Your task to perform on an android device: Go to Reddit.com Image 0: 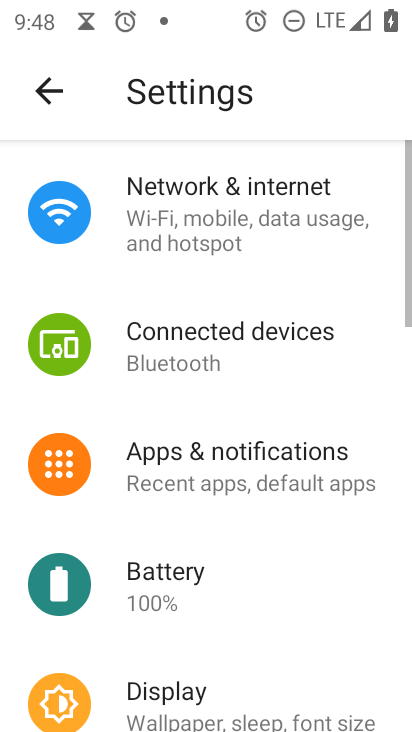
Step 0: press back button
Your task to perform on an android device: Go to Reddit.com Image 1: 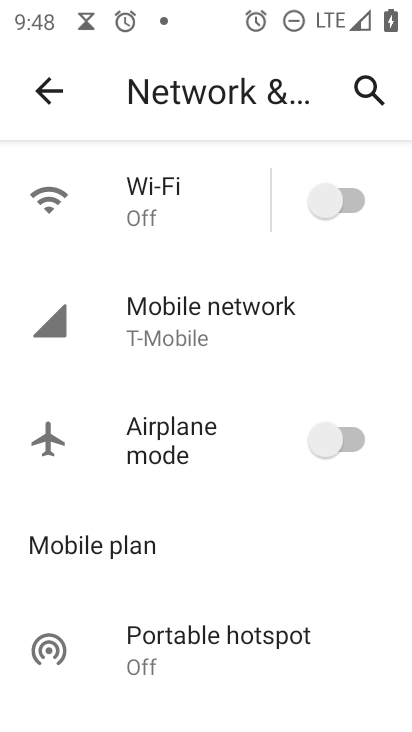
Step 1: press home button
Your task to perform on an android device: Go to Reddit.com Image 2: 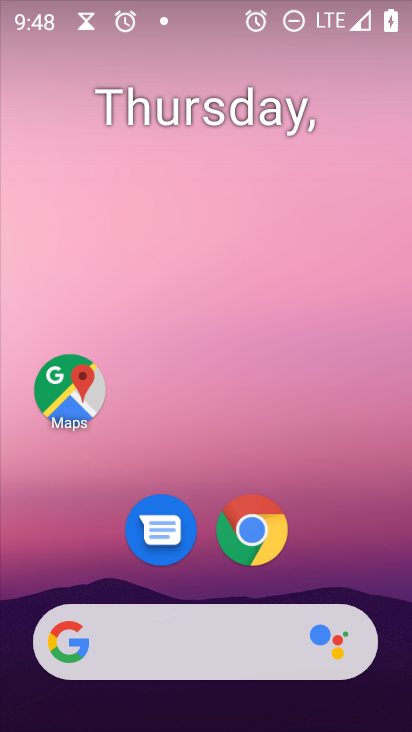
Step 2: drag from (326, 519) to (303, 54)
Your task to perform on an android device: Go to Reddit.com Image 3: 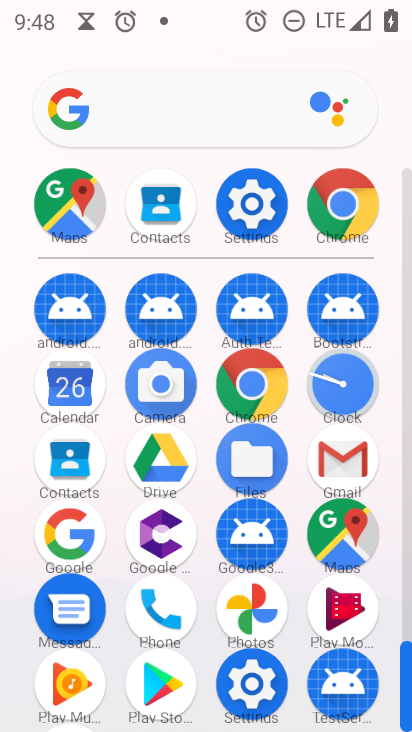
Step 3: click (253, 378)
Your task to perform on an android device: Go to Reddit.com Image 4: 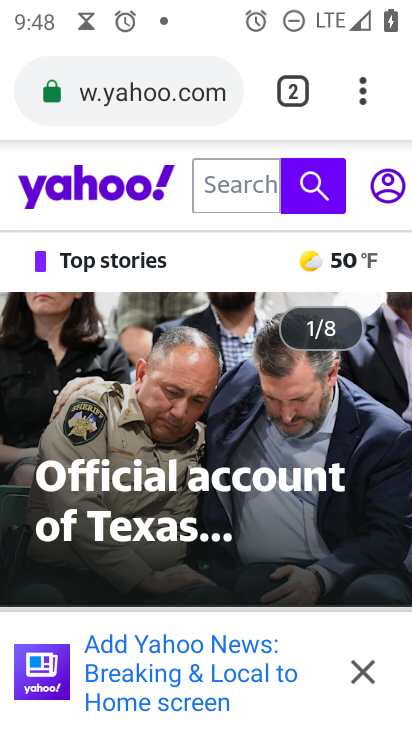
Step 4: click (137, 88)
Your task to perform on an android device: Go to Reddit.com Image 5: 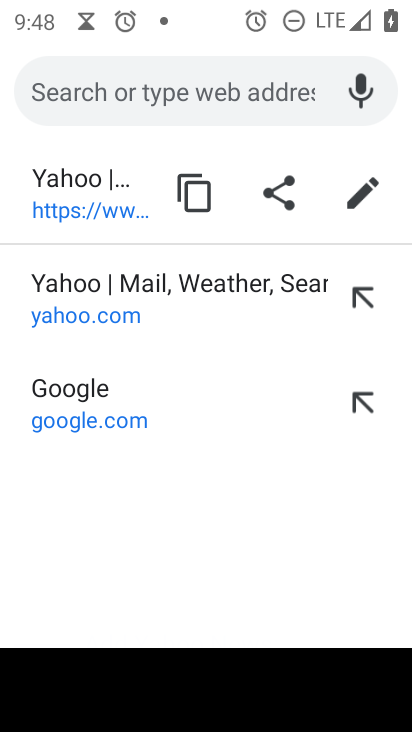
Step 5: type " Reddit.com"
Your task to perform on an android device: Go to Reddit.com Image 6: 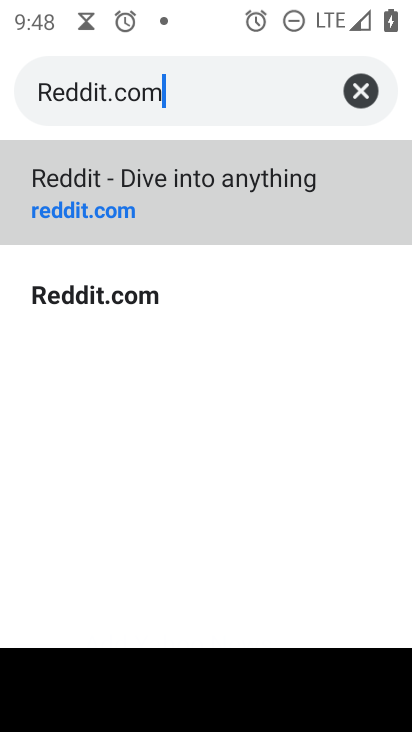
Step 6: type ""
Your task to perform on an android device: Go to Reddit.com Image 7: 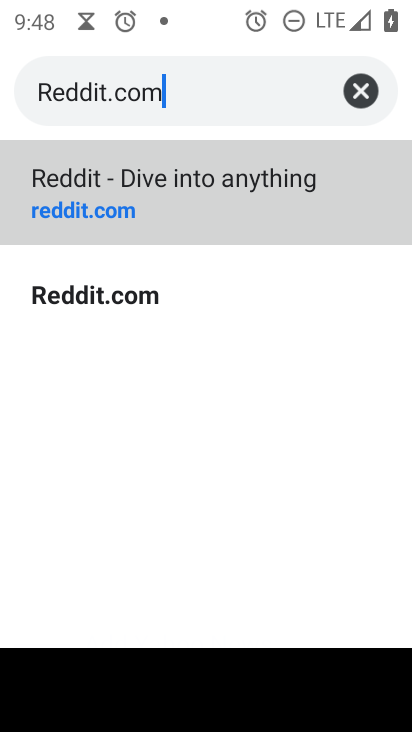
Step 7: click (288, 181)
Your task to perform on an android device: Go to Reddit.com Image 8: 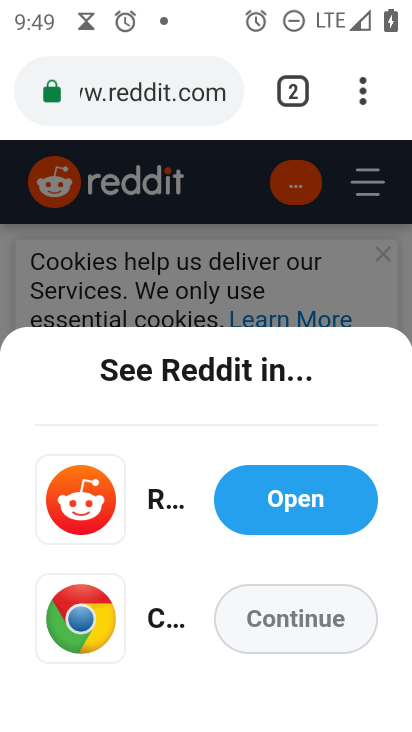
Step 8: task complete